Your task to perform on an android device: Open privacy settings Image 0: 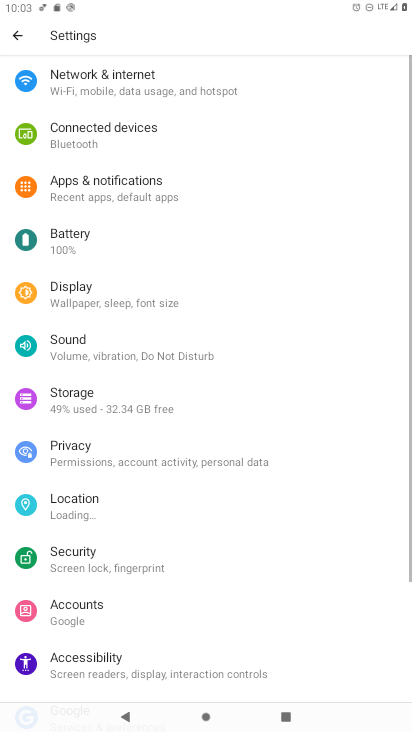
Step 0: drag from (389, 638) to (369, 233)
Your task to perform on an android device: Open privacy settings Image 1: 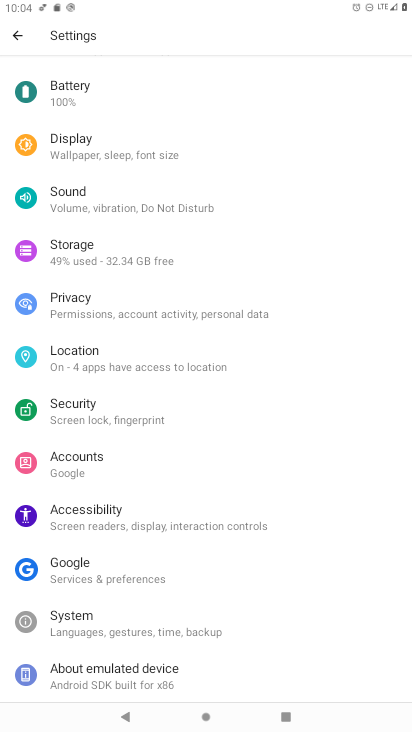
Step 1: click (90, 321)
Your task to perform on an android device: Open privacy settings Image 2: 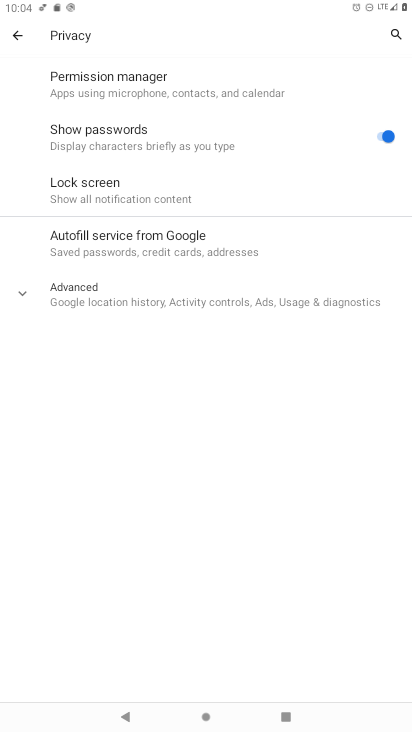
Step 2: task complete